Your task to perform on an android device: Go to notification settings Image 0: 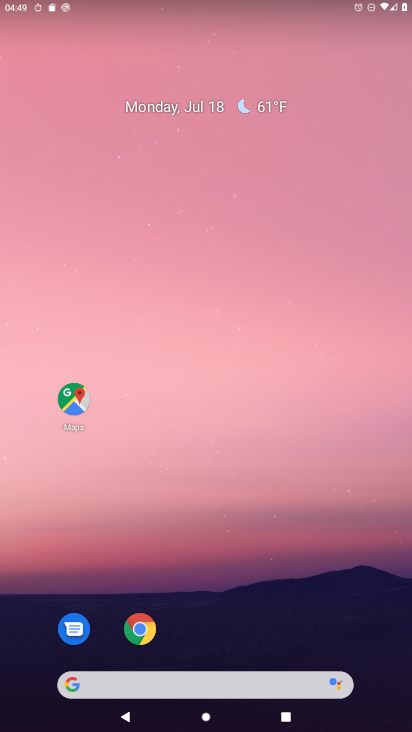
Step 0: drag from (187, 687) to (203, 280)
Your task to perform on an android device: Go to notification settings Image 1: 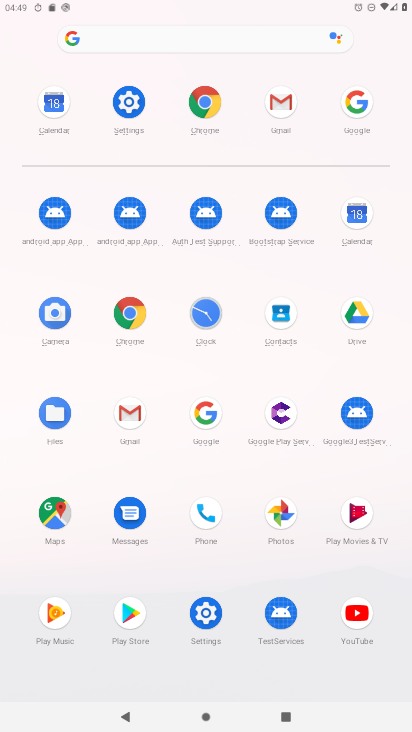
Step 1: click (206, 613)
Your task to perform on an android device: Go to notification settings Image 2: 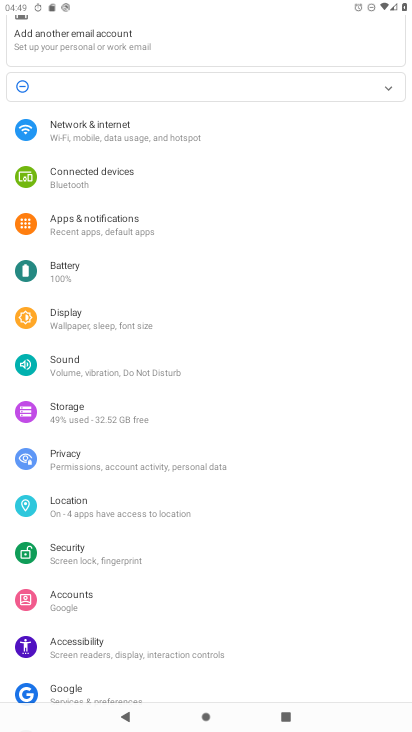
Step 2: click (81, 223)
Your task to perform on an android device: Go to notification settings Image 3: 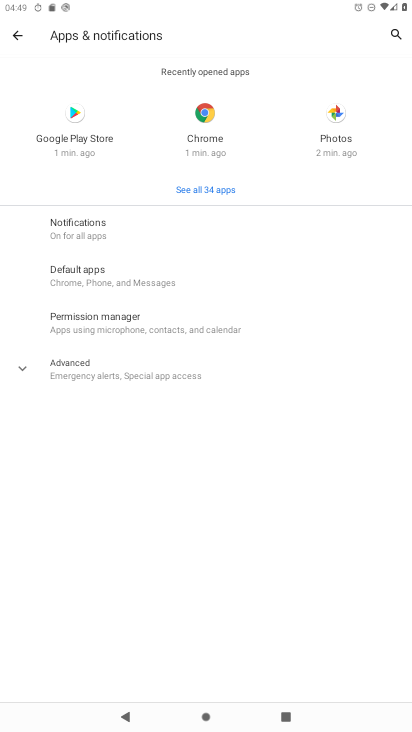
Step 3: click (94, 227)
Your task to perform on an android device: Go to notification settings Image 4: 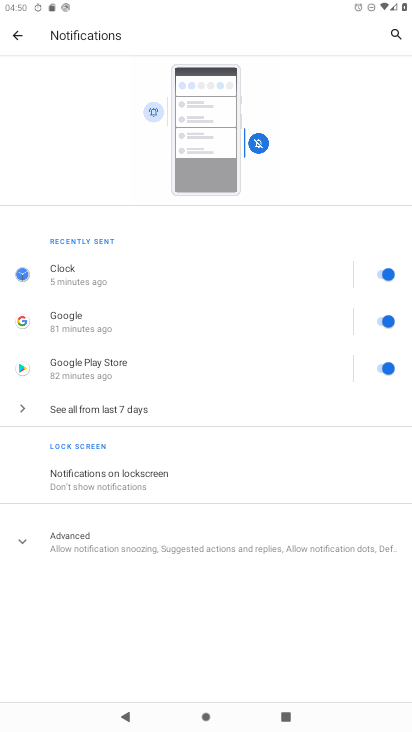
Step 4: task complete